Your task to perform on an android device: check out phone information Image 0: 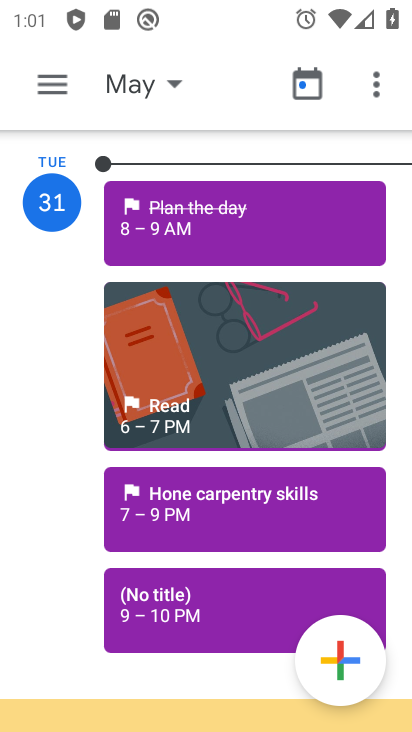
Step 0: press home button
Your task to perform on an android device: check out phone information Image 1: 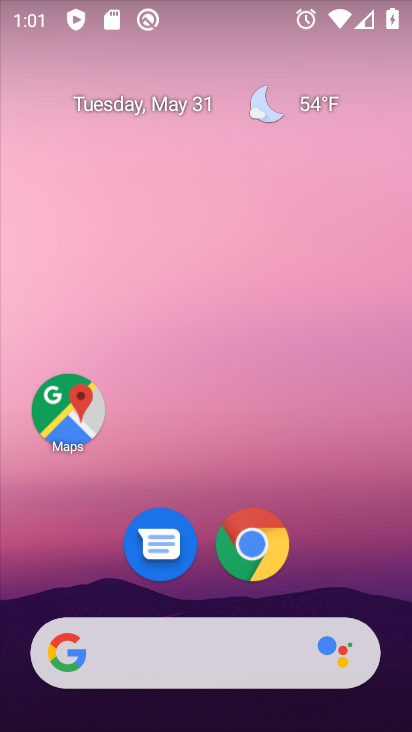
Step 1: drag from (331, 585) to (286, 92)
Your task to perform on an android device: check out phone information Image 2: 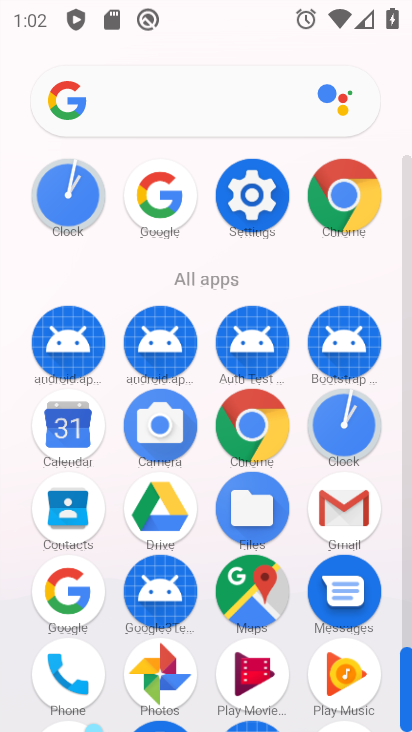
Step 2: click (254, 203)
Your task to perform on an android device: check out phone information Image 3: 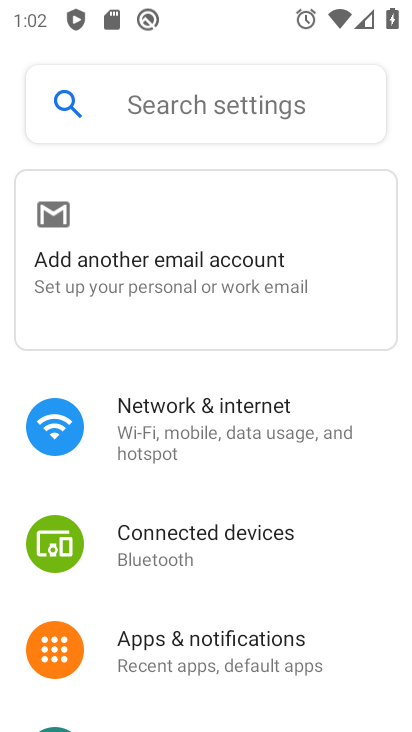
Step 3: drag from (242, 657) to (248, 244)
Your task to perform on an android device: check out phone information Image 4: 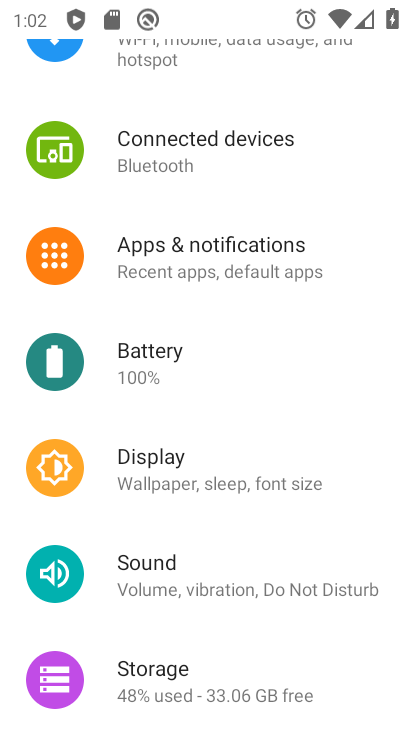
Step 4: drag from (228, 686) to (241, 131)
Your task to perform on an android device: check out phone information Image 5: 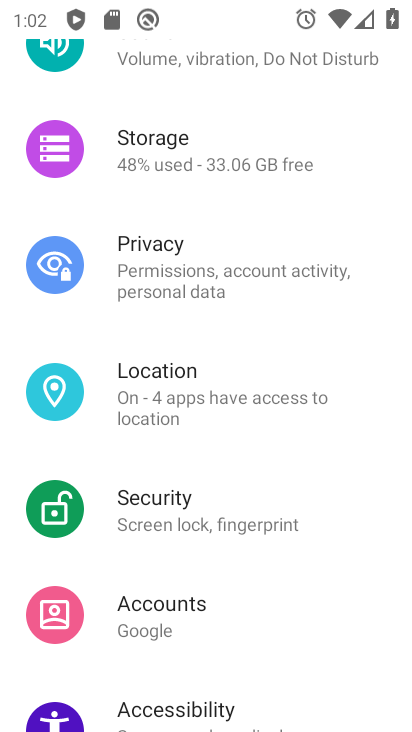
Step 5: drag from (230, 716) to (198, 336)
Your task to perform on an android device: check out phone information Image 6: 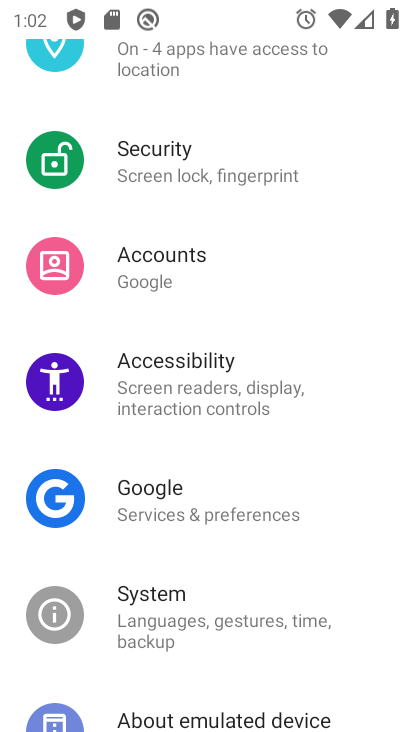
Step 6: drag from (179, 608) to (200, 129)
Your task to perform on an android device: check out phone information Image 7: 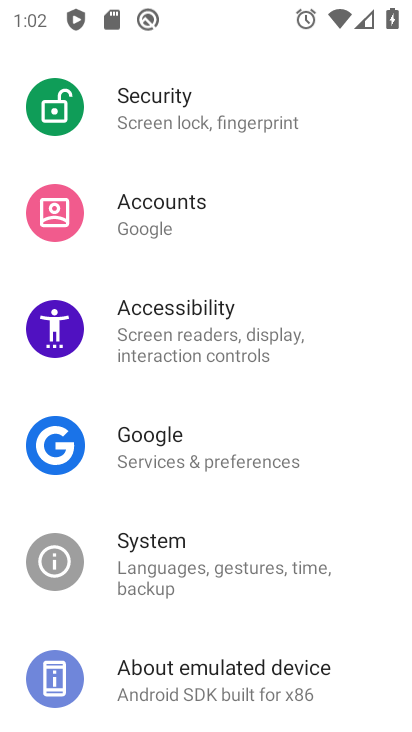
Step 7: click (194, 675)
Your task to perform on an android device: check out phone information Image 8: 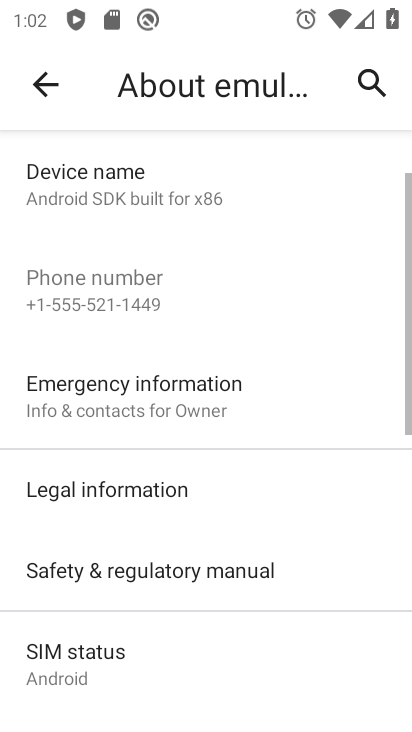
Step 8: drag from (199, 694) to (207, 418)
Your task to perform on an android device: check out phone information Image 9: 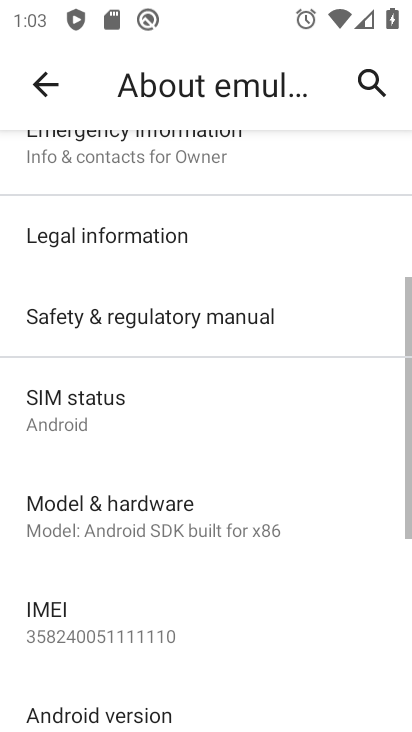
Step 9: drag from (232, 668) to (226, 442)
Your task to perform on an android device: check out phone information Image 10: 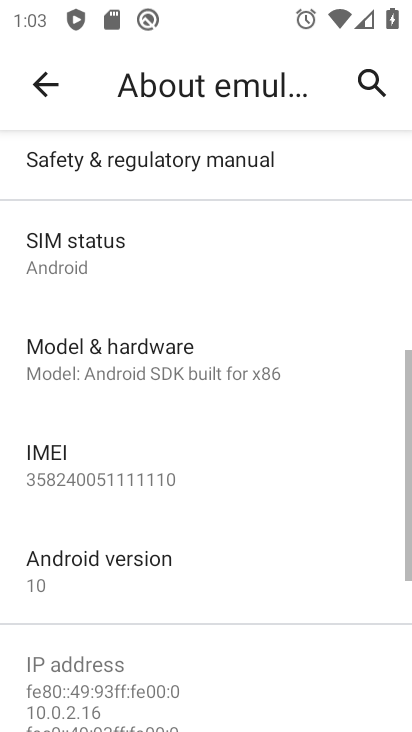
Step 10: click (120, 589)
Your task to perform on an android device: check out phone information Image 11: 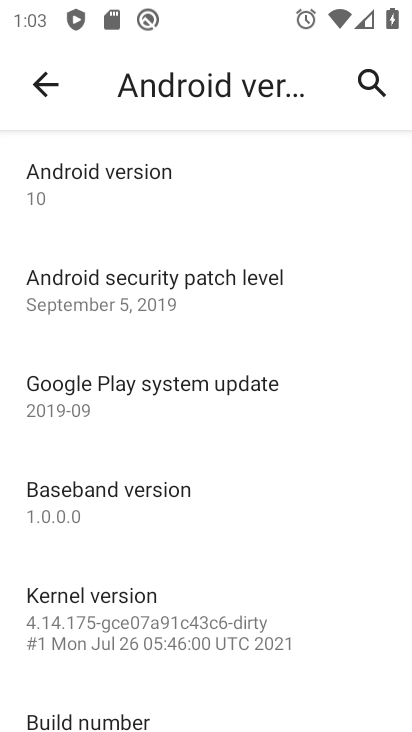
Step 11: task complete